Your task to perform on an android device: allow cookies in the chrome app Image 0: 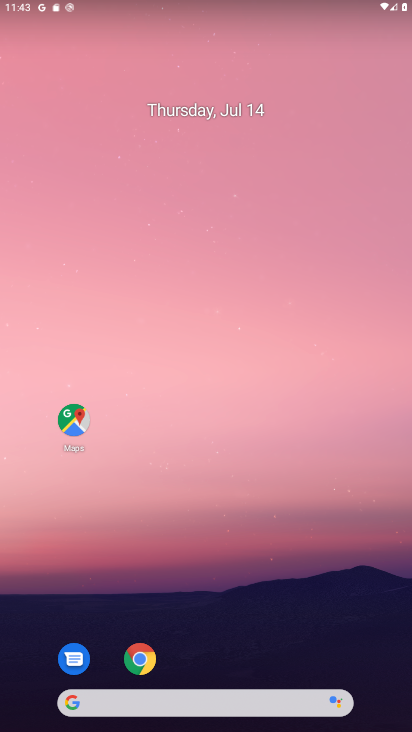
Step 0: drag from (248, 631) to (205, 245)
Your task to perform on an android device: allow cookies in the chrome app Image 1: 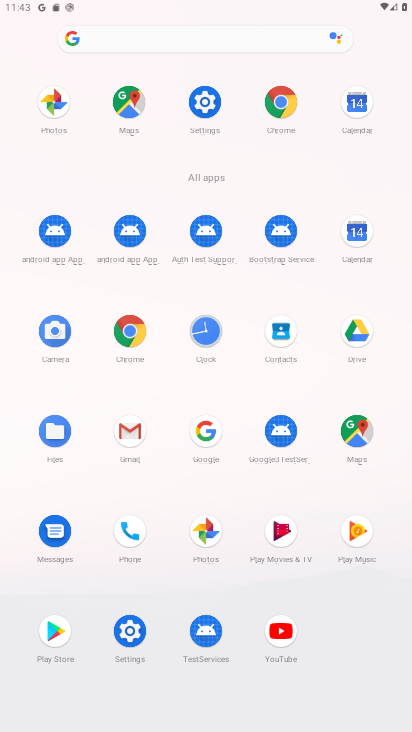
Step 1: click (289, 99)
Your task to perform on an android device: allow cookies in the chrome app Image 2: 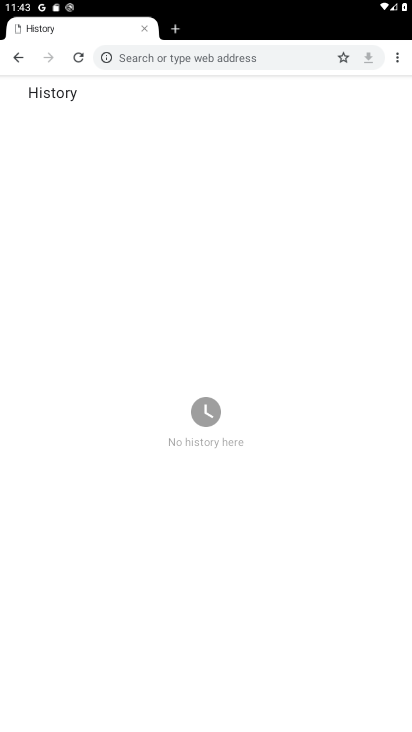
Step 2: click (396, 66)
Your task to perform on an android device: allow cookies in the chrome app Image 3: 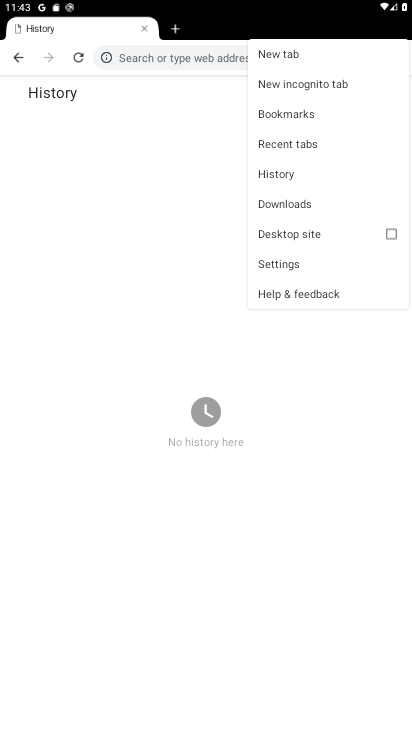
Step 3: click (296, 263)
Your task to perform on an android device: allow cookies in the chrome app Image 4: 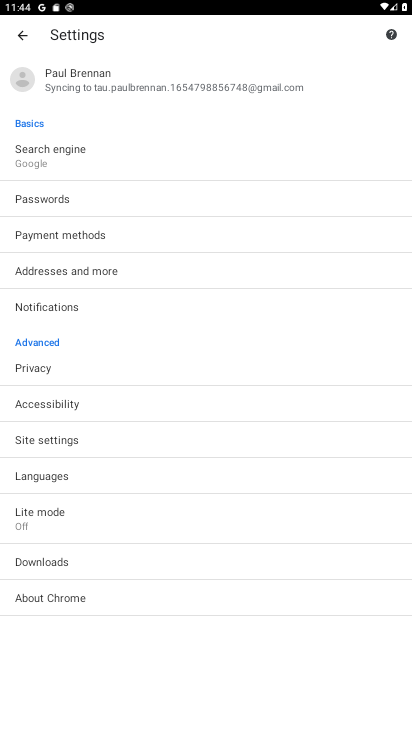
Step 4: click (80, 438)
Your task to perform on an android device: allow cookies in the chrome app Image 5: 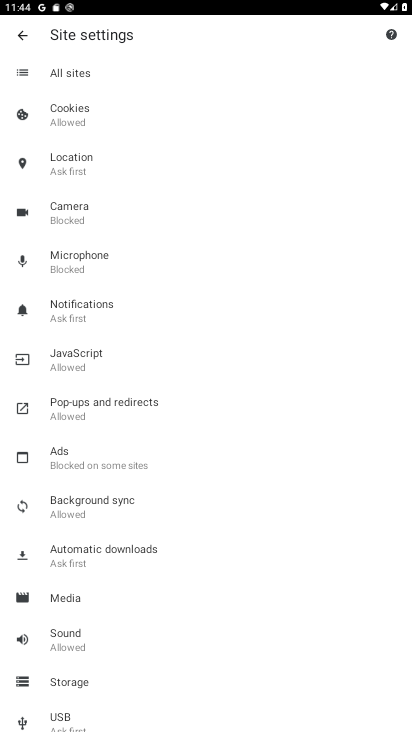
Step 5: click (122, 111)
Your task to perform on an android device: allow cookies in the chrome app Image 6: 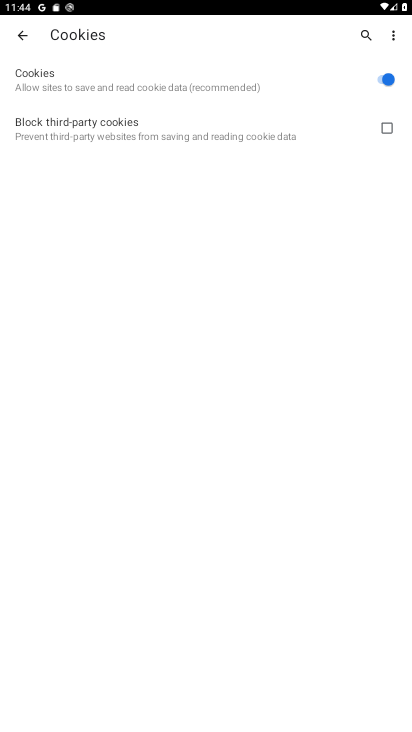
Step 6: task complete